Your task to perform on an android device: Look up the best rated 3d printer on Ali Express Image 0: 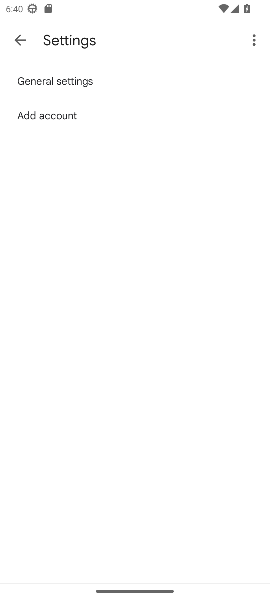
Step 0: press home button
Your task to perform on an android device: Look up the best rated 3d printer on Ali Express Image 1: 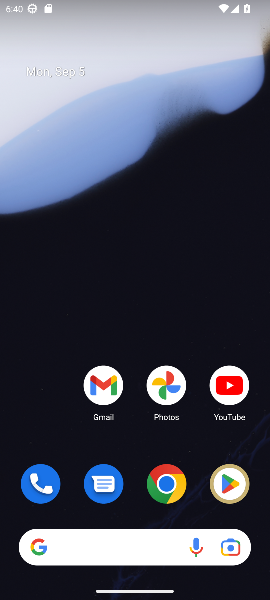
Step 1: click (104, 0)
Your task to perform on an android device: Look up the best rated 3d printer on Ali Express Image 2: 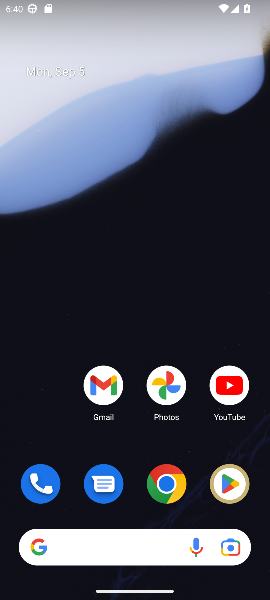
Step 2: drag from (136, 428) to (129, 0)
Your task to perform on an android device: Look up the best rated 3d printer on Ali Express Image 3: 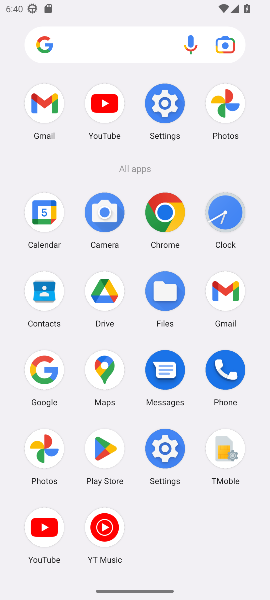
Step 3: click (173, 221)
Your task to perform on an android device: Look up the best rated 3d printer on Ali Express Image 4: 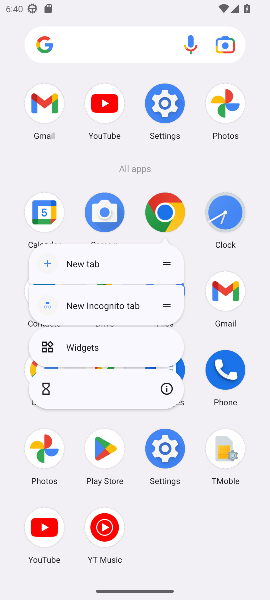
Step 4: click (173, 221)
Your task to perform on an android device: Look up the best rated 3d printer on Ali Express Image 5: 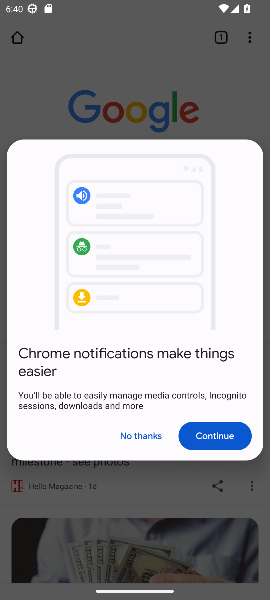
Step 5: click (139, 433)
Your task to perform on an android device: Look up the best rated 3d printer on Ali Express Image 6: 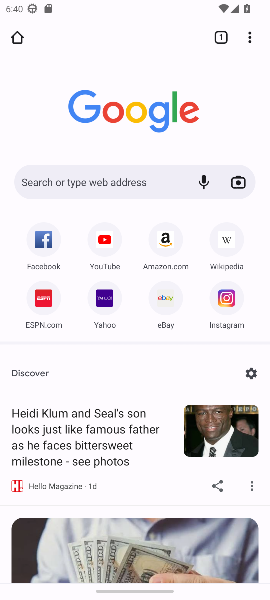
Step 6: click (88, 194)
Your task to perform on an android device: Look up the best rated 3d printer on Ali Express Image 7: 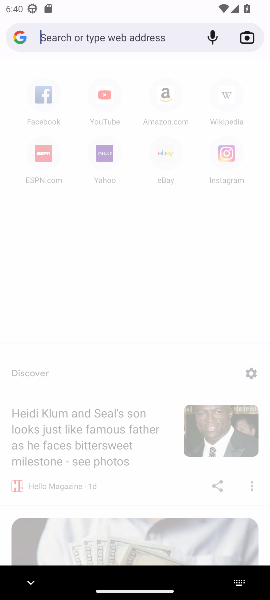
Step 7: type "Ali Express"
Your task to perform on an android device: Look up the best rated 3d printer on Ali Express Image 8: 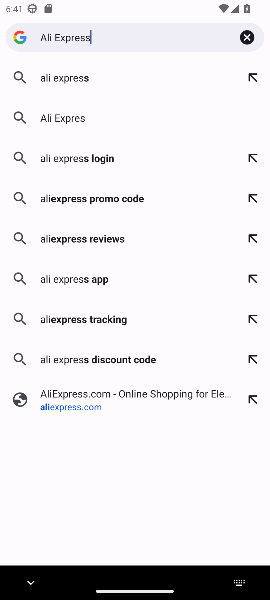
Step 8: press enter
Your task to perform on an android device: Look up the best rated 3d printer on Ali Express Image 9: 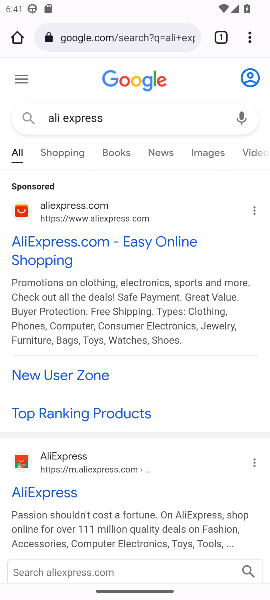
Step 9: click (90, 241)
Your task to perform on an android device: Look up the best rated 3d printer on Ali Express Image 10: 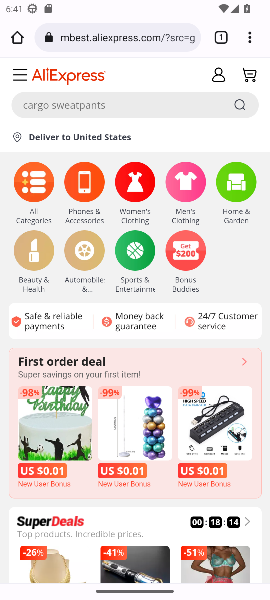
Step 10: click (91, 103)
Your task to perform on an android device: Look up the best rated 3d printer on Ali Express Image 11: 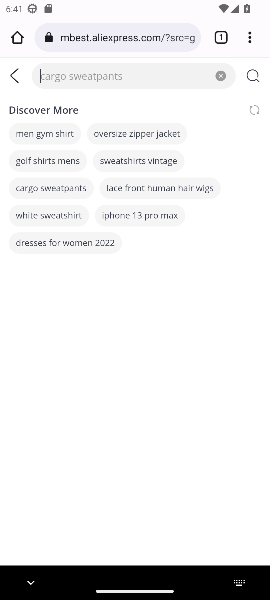
Step 11: type "best rated 3d printer"
Your task to perform on an android device: Look up the best rated 3d printer on Ali Express Image 12: 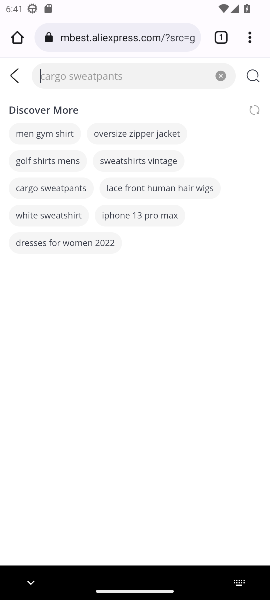
Step 12: press enter
Your task to perform on an android device: Look up the best rated 3d printer on Ali Express Image 13: 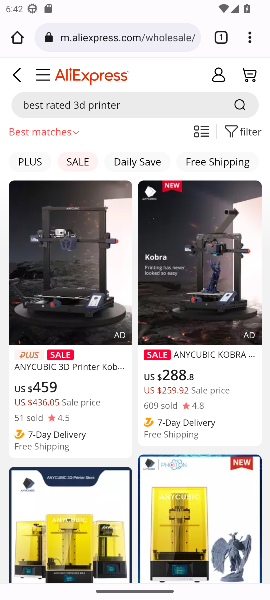
Step 13: task complete